Your task to perform on an android device: open a bookmark in the chrome app Image 0: 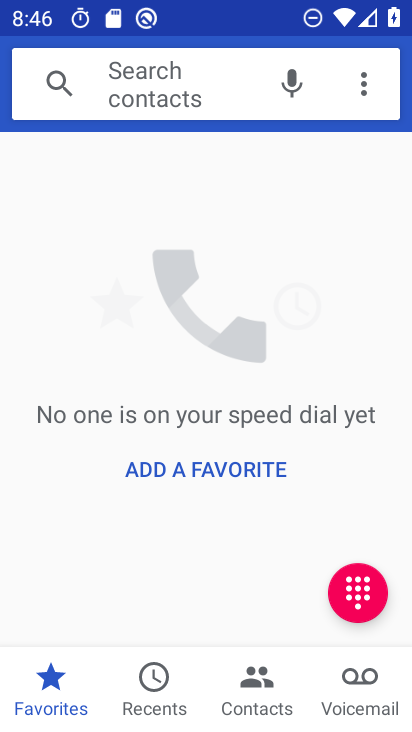
Step 0: press home button
Your task to perform on an android device: open a bookmark in the chrome app Image 1: 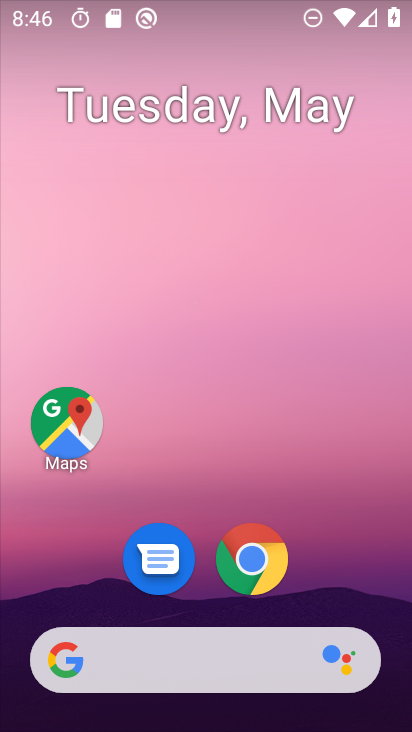
Step 1: drag from (377, 593) to (272, 89)
Your task to perform on an android device: open a bookmark in the chrome app Image 2: 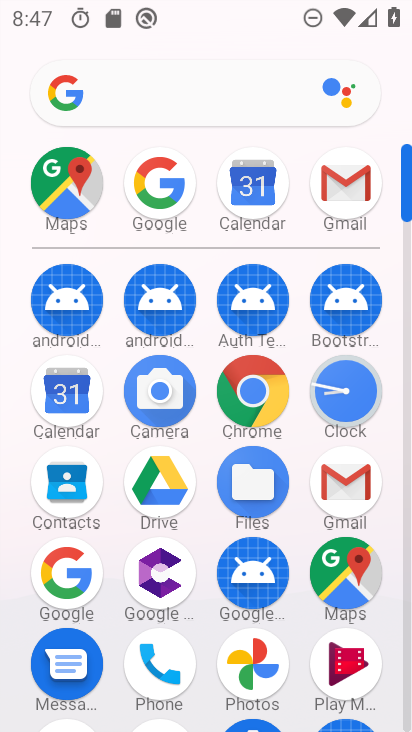
Step 2: click (258, 407)
Your task to perform on an android device: open a bookmark in the chrome app Image 3: 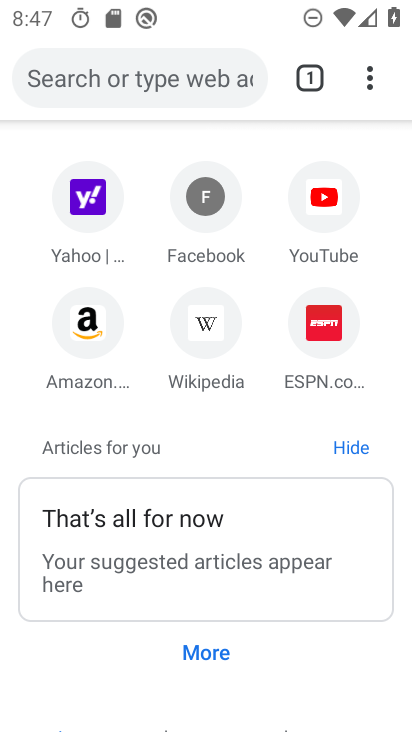
Step 3: click (375, 73)
Your task to perform on an android device: open a bookmark in the chrome app Image 4: 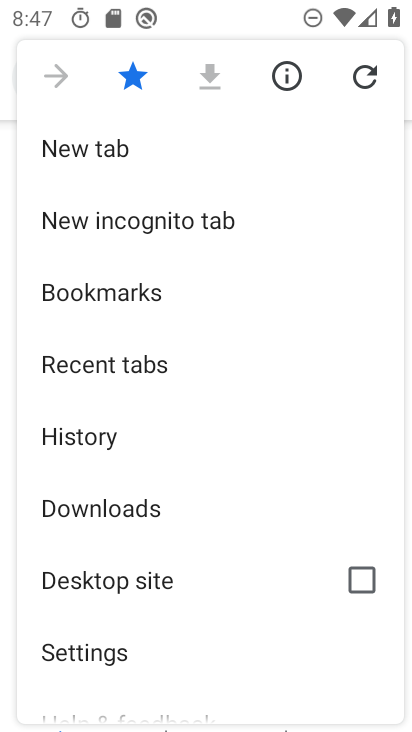
Step 4: click (189, 295)
Your task to perform on an android device: open a bookmark in the chrome app Image 5: 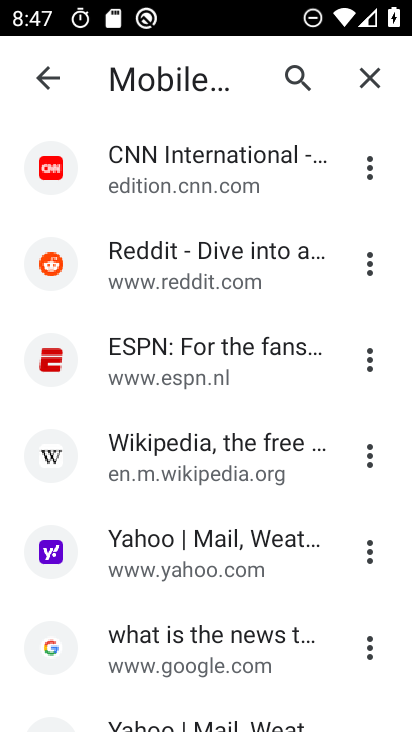
Step 5: task complete